Your task to perform on an android device: manage bookmarks in the chrome app Image 0: 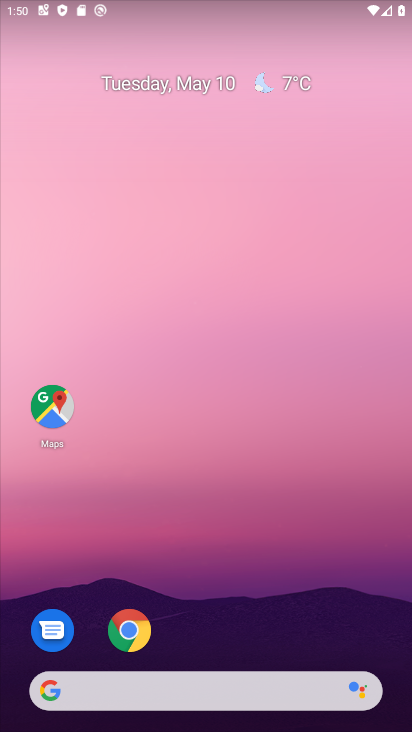
Step 0: drag from (213, 621) to (138, 9)
Your task to perform on an android device: manage bookmarks in the chrome app Image 1: 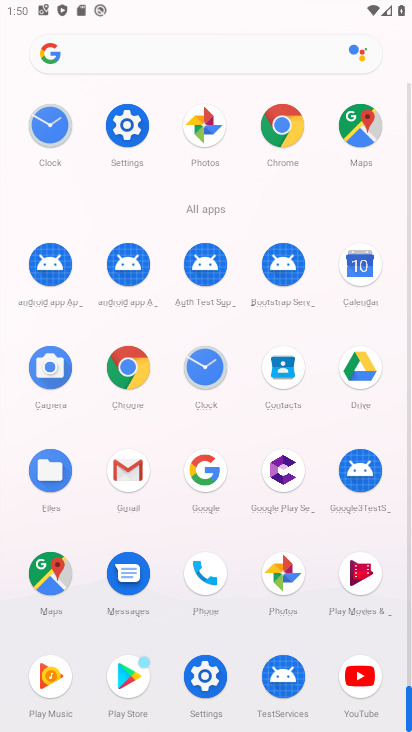
Step 1: click (127, 366)
Your task to perform on an android device: manage bookmarks in the chrome app Image 2: 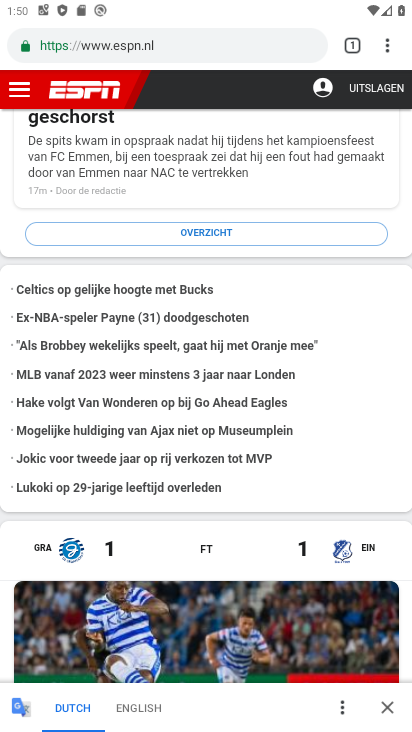
Step 2: drag from (385, 43) to (226, 552)
Your task to perform on an android device: manage bookmarks in the chrome app Image 3: 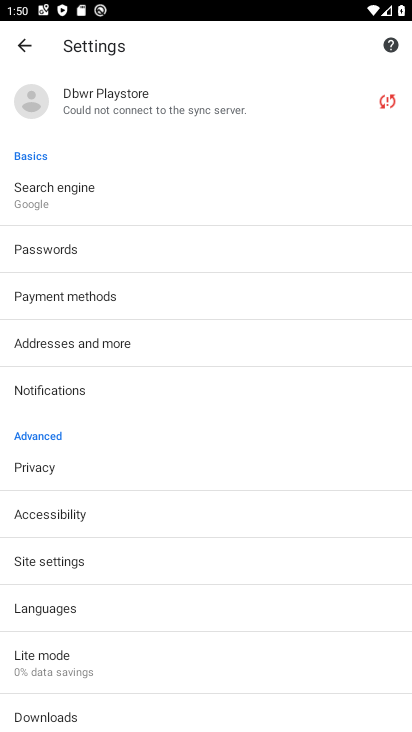
Step 3: click (23, 49)
Your task to perform on an android device: manage bookmarks in the chrome app Image 4: 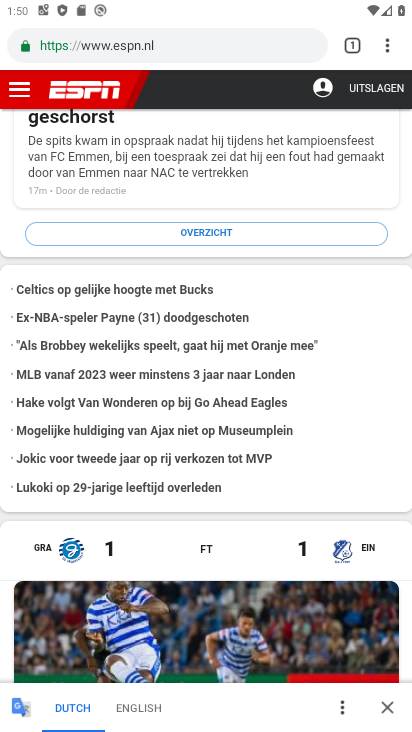
Step 4: task complete